Your task to perform on an android device: Open CNN.com Image 0: 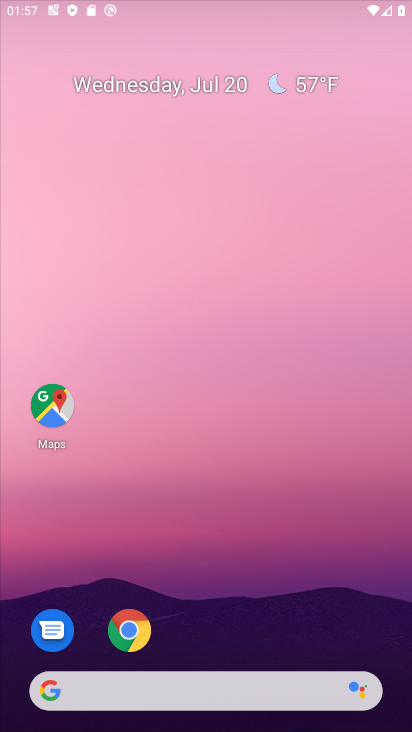
Step 0: drag from (297, 328) to (291, 121)
Your task to perform on an android device: Open CNN.com Image 1: 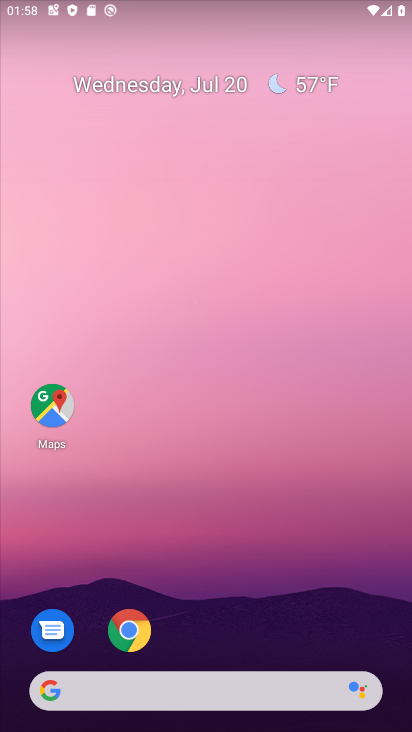
Step 1: drag from (285, 558) to (275, 9)
Your task to perform on an android device: Open CNN.com Image 2: 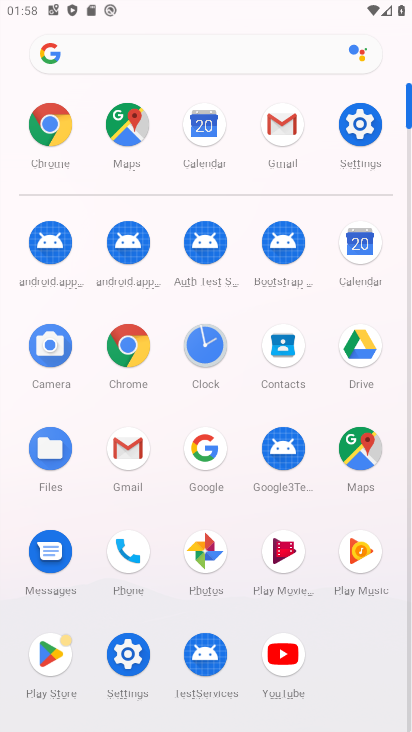
Step 2: click (49, 134)
Your task to perform on an android device: Open CNN.com Image 3: 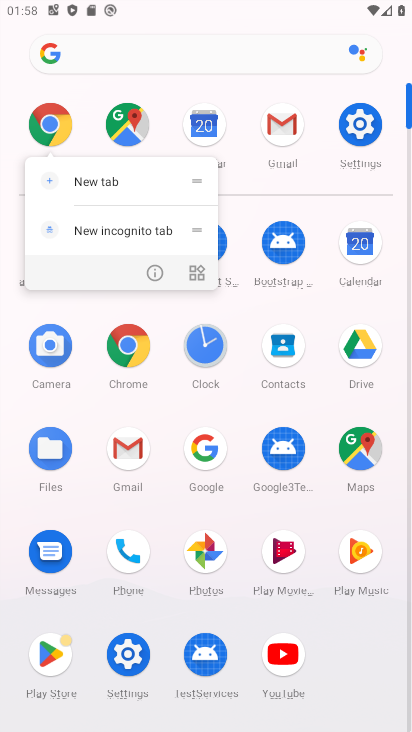
Step 3: click (49, 125)
Your task to perform on an android device: Open CNN.com Image 4: 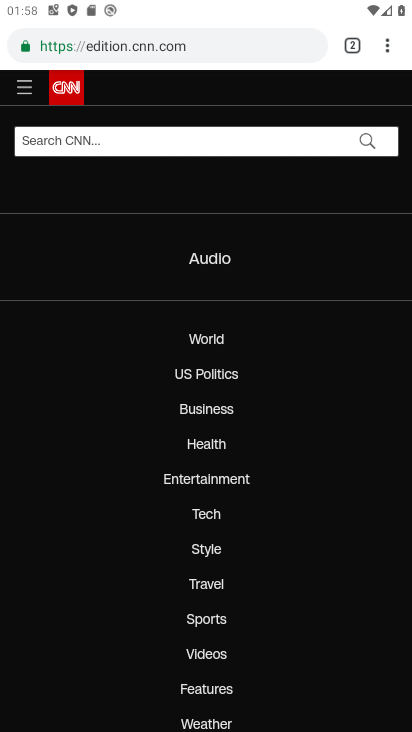
Step 4: task complete